Your task to perform on an android device: Open location settings Image 0: 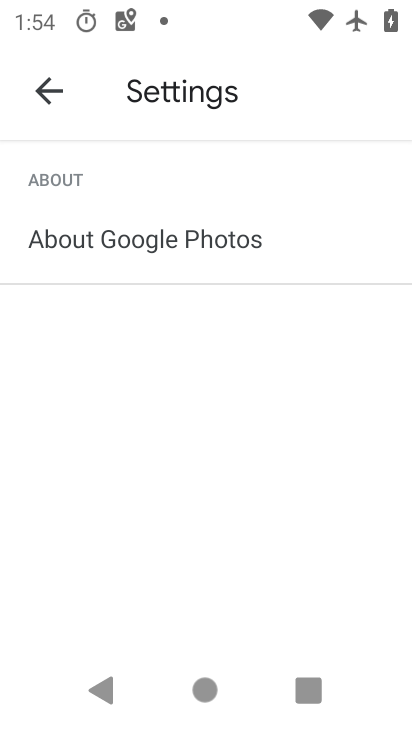
Step 0: press home button
Your task to perform on an android device: Open location settings Image 1: 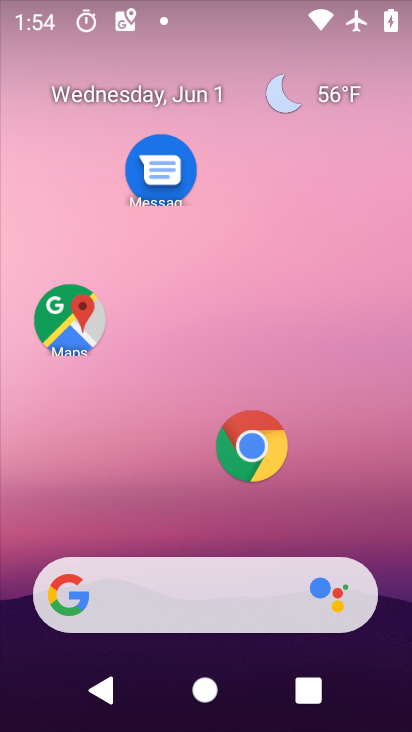
Step 1: drag from (108, 325) to (221, 126)
Your task to perform on an android device: Open location settings Image 2: 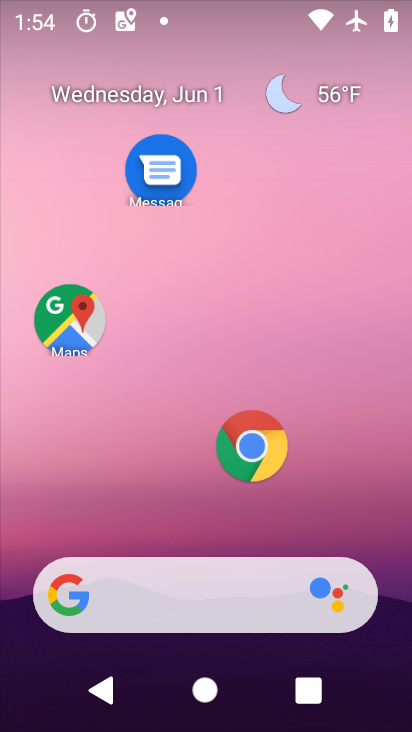
Step 2: drag from (14, 574) to (318, 147)
Your task to perform on an android device: Open location settings Image 3: 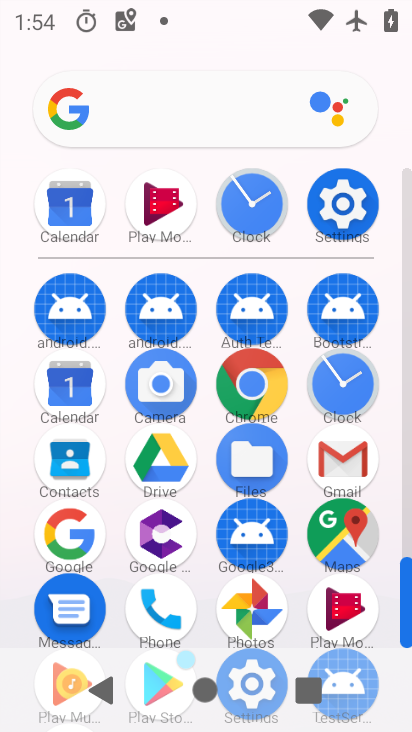
Step 3: click (336, 193)
Your task to perform on an android device: Open location settings Image 4: 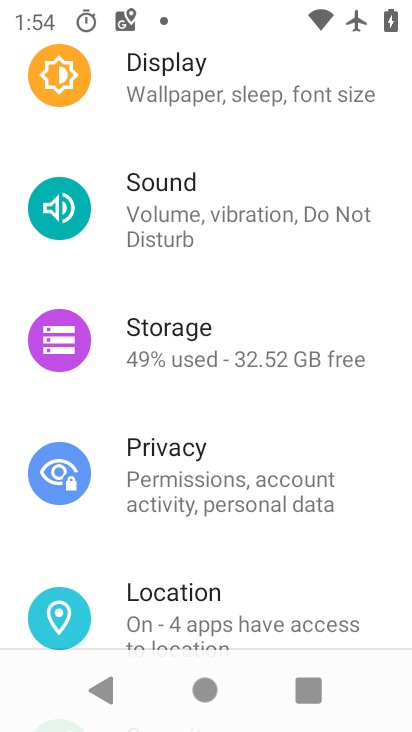
Step 4: drag from (200, 70) to (115, 464)
Your task to perform on an android device: Open location settings Image 5: 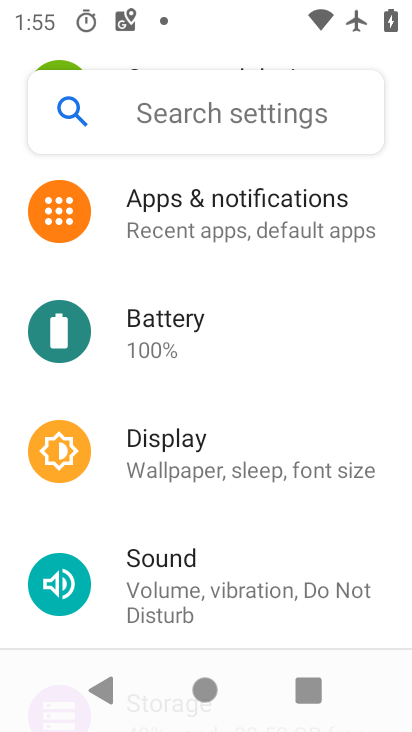
Step 5: drag from (11, 521) to (168, 209)
Your task to perform on an android device: Open location settings Image 6: 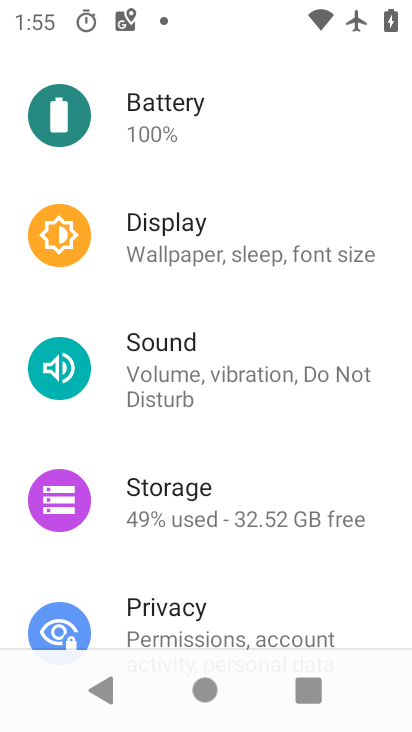
Step 6: drag from (30, 470) to (204, 119)
Your task to perform on an android device: Open location settings Image 7: 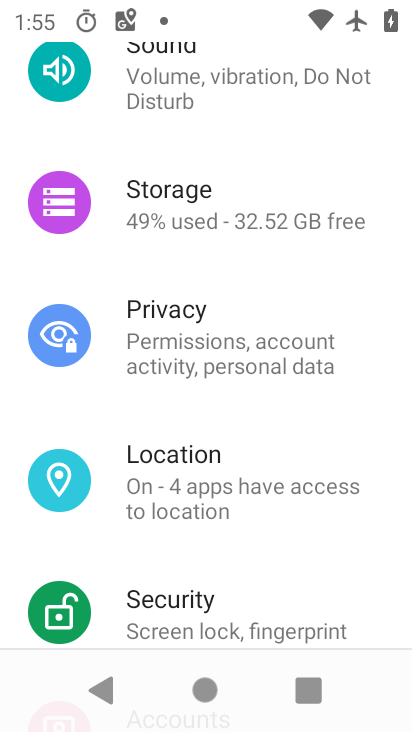
Step 7: click (137, 474)
Your task to perform on an android device: Open location settings Image 8: 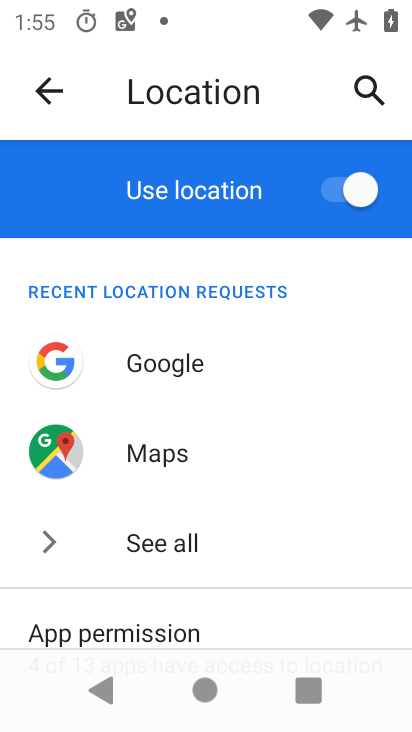
Step 8: task complete